Your task to perform on an android device: Open Youtube and go to "Your channel" Image 0: 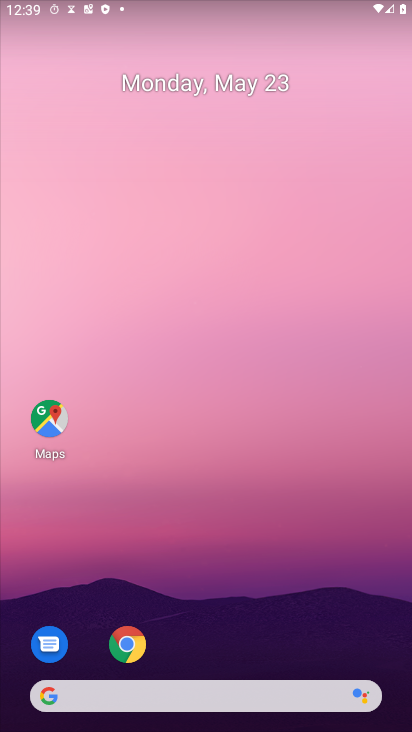
Step 0: drag from (239, 646) to (285, 61)
Your task to perform on an android device: Open Youtube and go to "Your channel" Image 1: 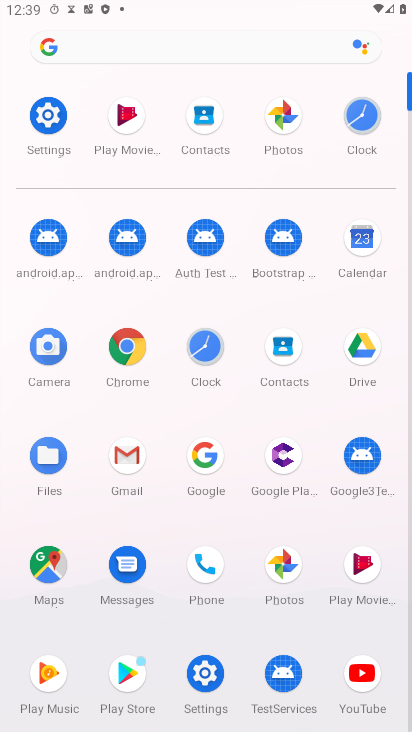
Step 1: click (366, 680)
Your task to perform on an android device: Open Youtube and go to "Your channel" Image 2: 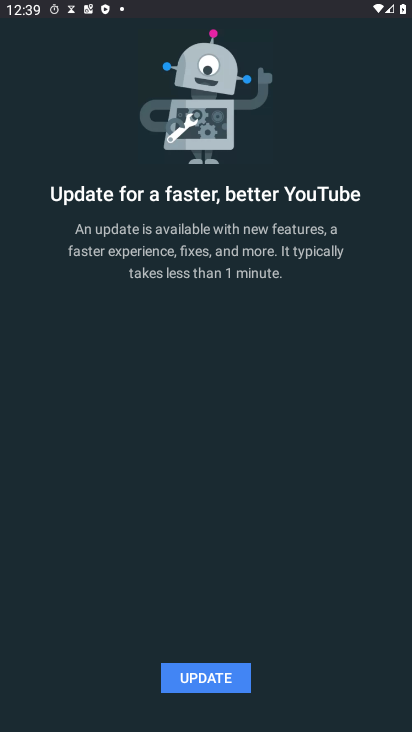
Step 2: click (216, 686)
Your task to perform on an android device: Open Youtube and go to "Your channel" Image 3: 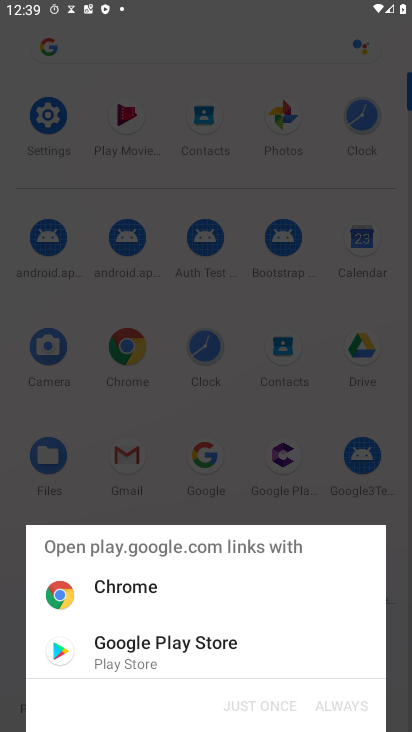
Step 3: click (156, 649)
Your task to perform on an android device: Open Youtube and go to "Your channel" Image 4: 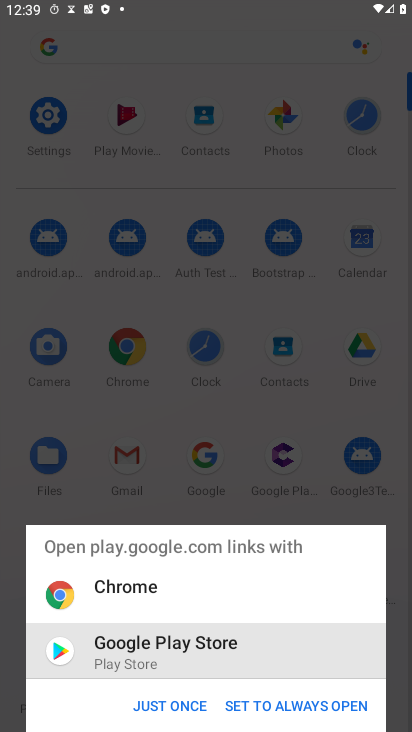
Step 4: click (173, 708)
Your task to perform on an android device: Open Youtube and go to "Your channel" Image 5: 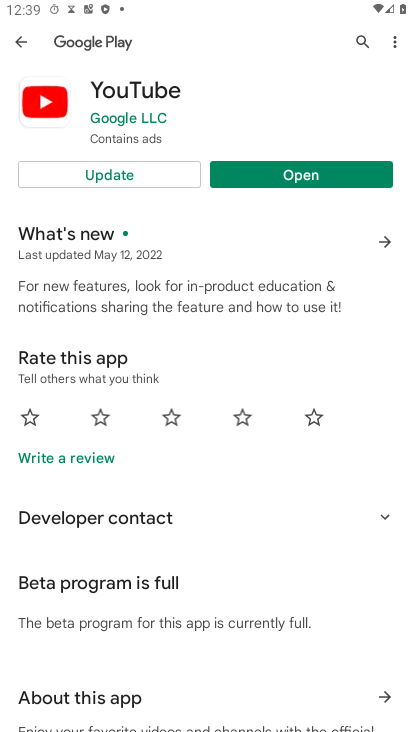
Step 5: click (156, 175)
Your task to perform on an android device: Open Youtube and go to "Your channel" Image 6: 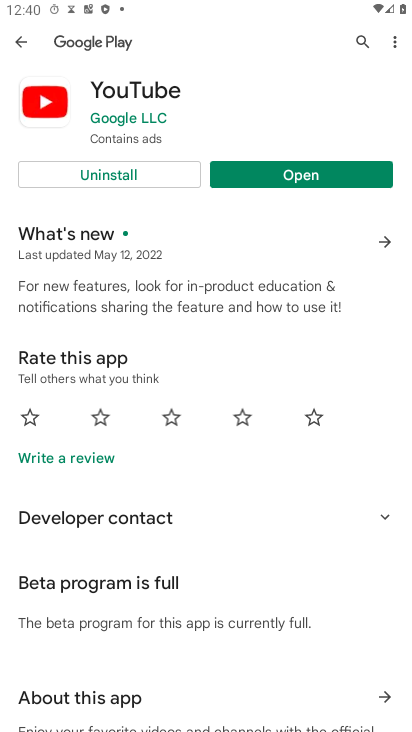
Step 6: click (267, 179)
Your task to perform on an android device: Open Youtube and go to "Your channel" Image 7: 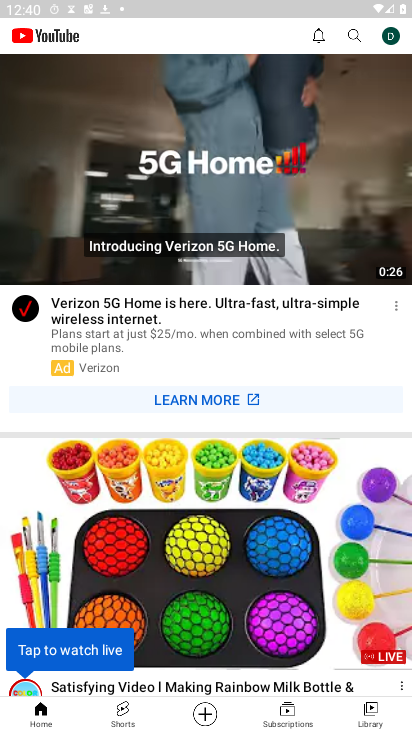
Step 7: click (388, 34)
Your task to perform on an android device: Open Youtube and go to "Your channel" Image 8: 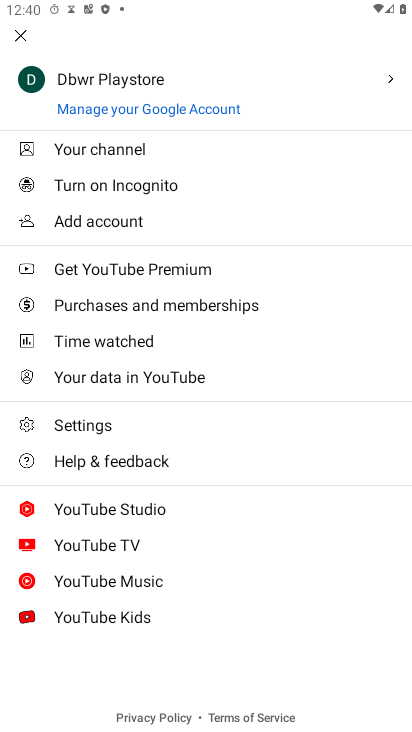
Step 8: click (84, 151)
Your task to perform on an android device: Open Youtube and go to "Your channel" Image 9: 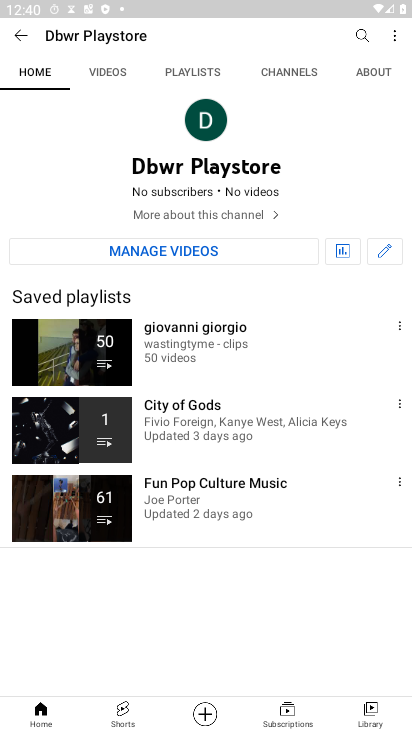
Step 9: task complete